Your task to perform on an android device: Go to wifi settings Image 0: 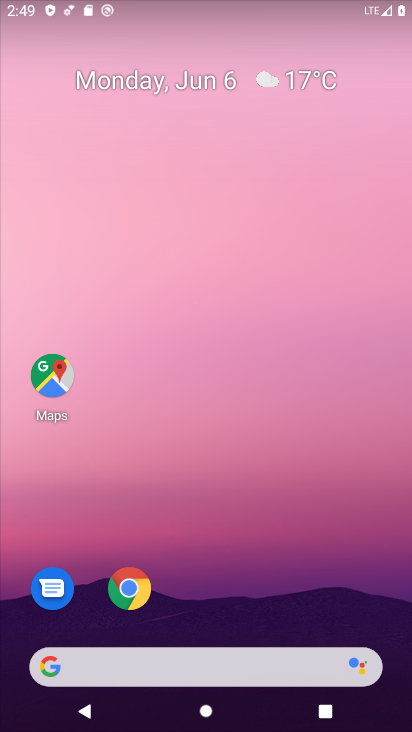
Step 0: drag from (209, 676) to (162, 12)
Your task to perform on an android device: Go to wifi settings Image 1: 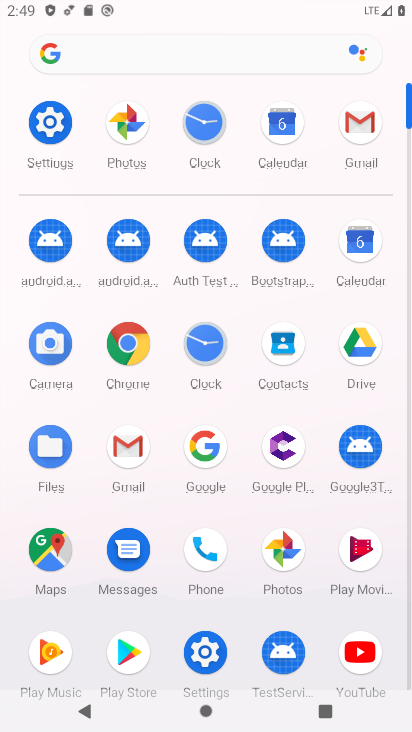
Step 1: click (36, 146)
Your task to perform on an android device: Go to wifi settings Image 2: 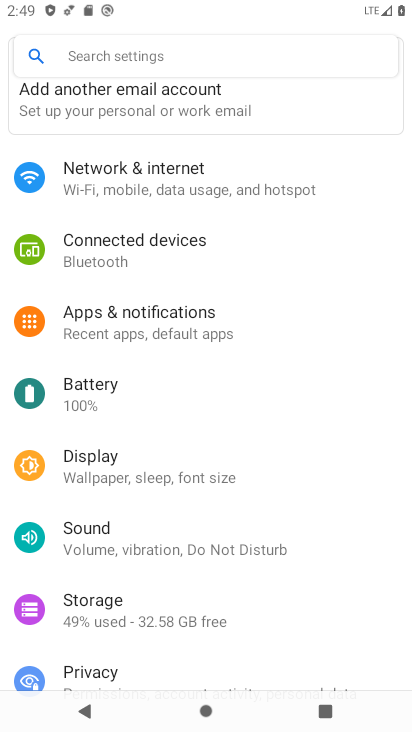
Step 2: click (174, 176)
Your task to perform on an android device: Go to wifi settings Image 3: 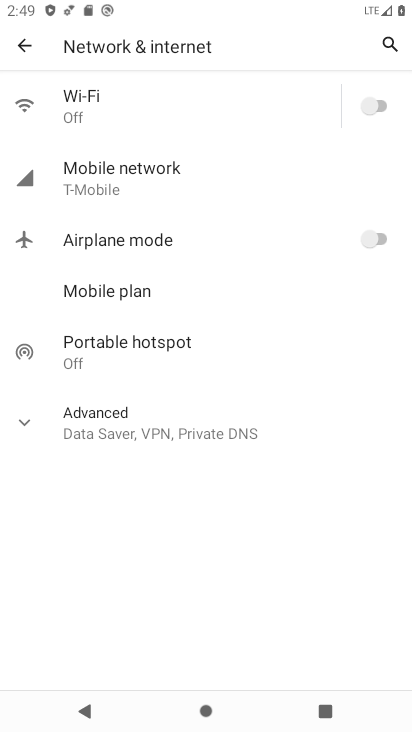
Step 3: click (118, 101)
Your task to perform on an android device: Go to wifi settings Image 4: 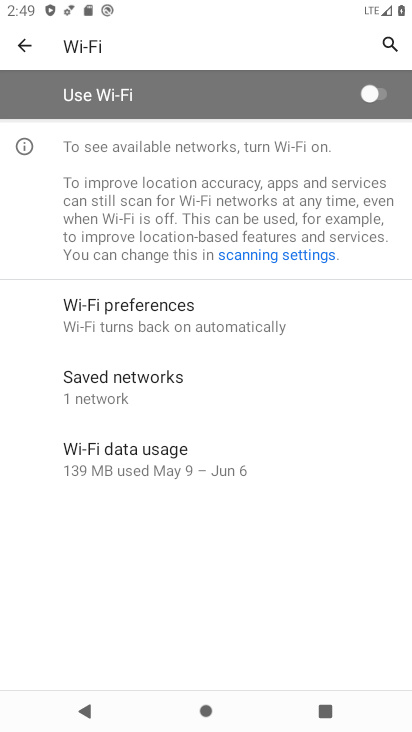
Step 4: task complete